Your task to perform on an android device: Open settings Image 0: 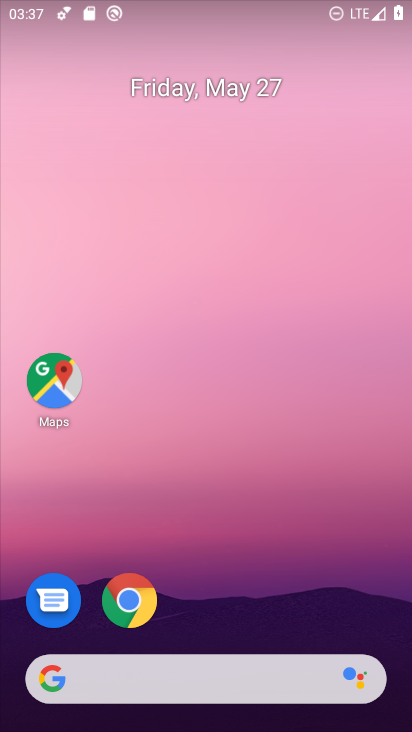
Step 0: drag from (220, 707) to (230, 70)
Your task to perform on an android device: Open settings Image 1: 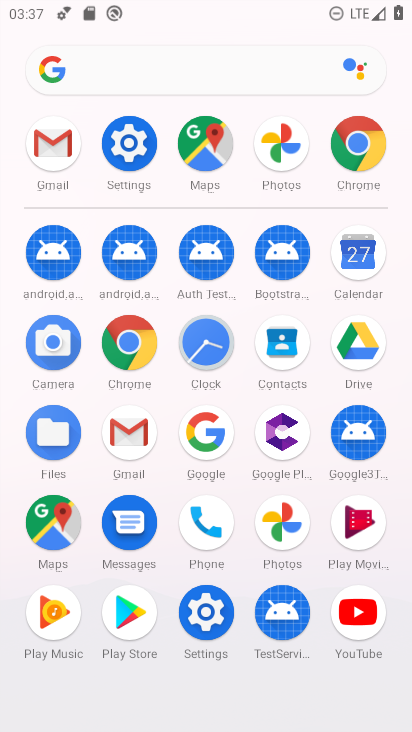
Step 1: click (129, 147)
Your task to perform on an android device: Open settings Image 2: 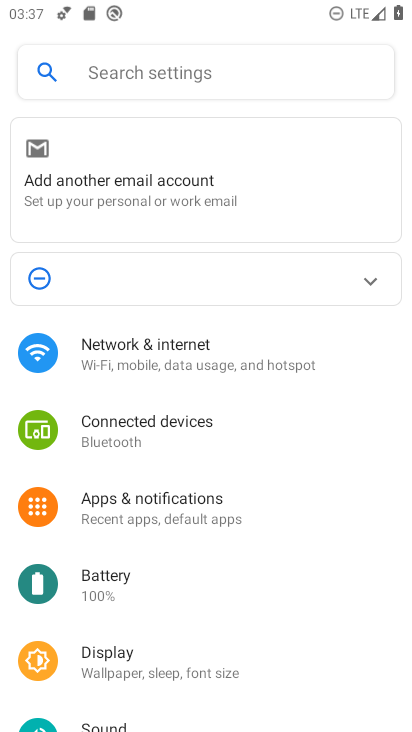
Step 2: task complete